Your task to perform on an android device: Open settings Image 0: 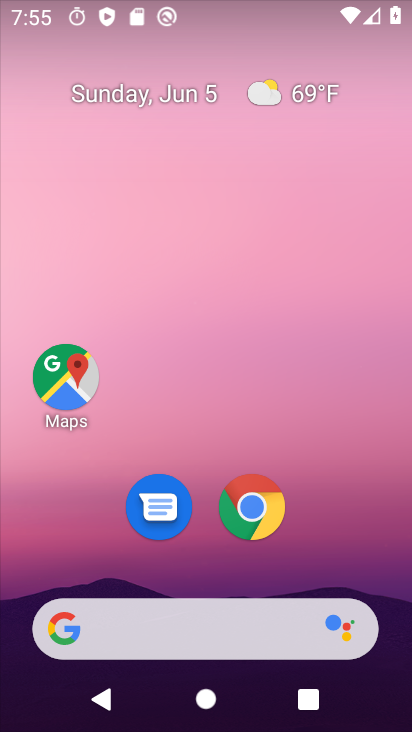
Step 0: drag from (343, 510) to (221, 37)
Your task to perform on an android device: Open settings Image 1: 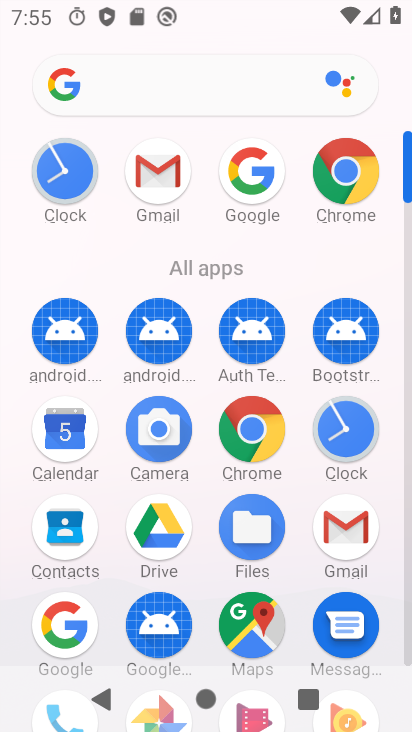
Step 1: drag from (16, 566) to (23, 207)
Your task to perform on an android device: Open settings Image 2: 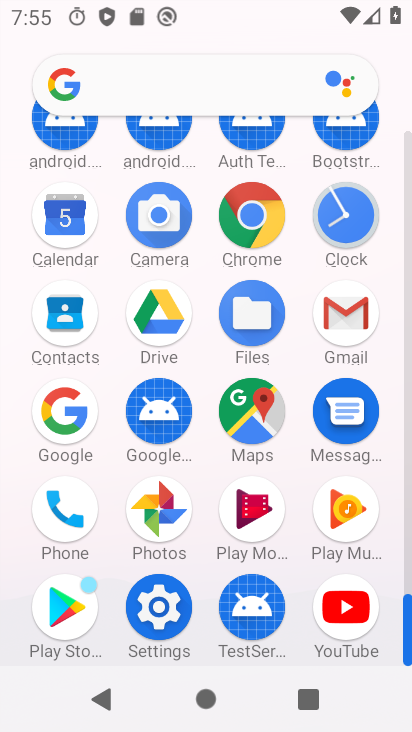
Step 2: click (157, 604)
Your task to perform on an android device: Open settings Image 3: 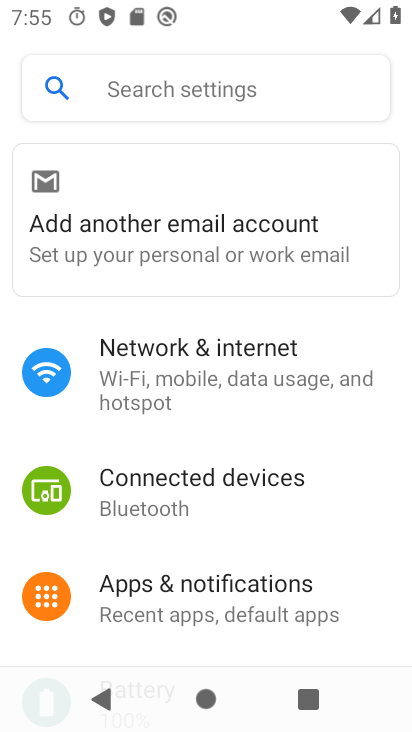
Step 3: task complete